Your task to perform on an android device: Open Reddit.com Image 0: 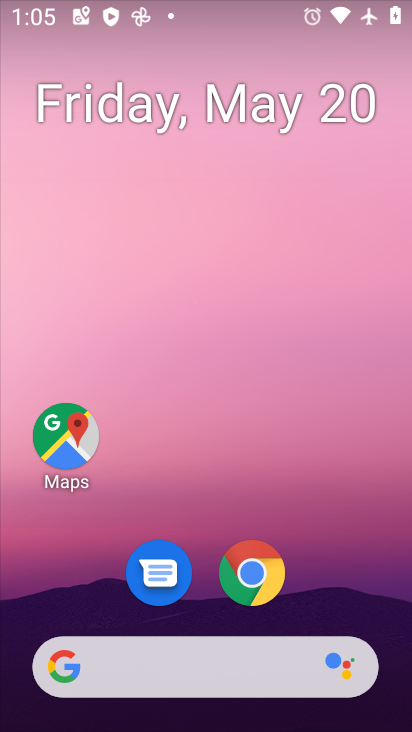
Step 0: drag from (311, 590) to (318, 102)
Your task to perform on an android device: Open Reddit.com Image 1: 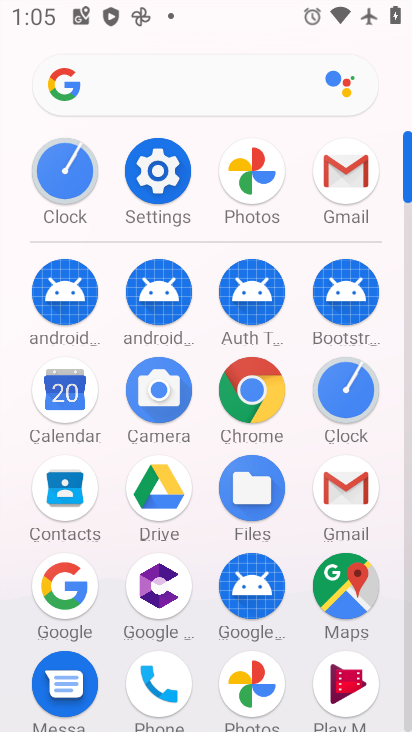
Step 1: click (57, 585)
Your task to perform on an android device: Open Reddit.com Image 2: 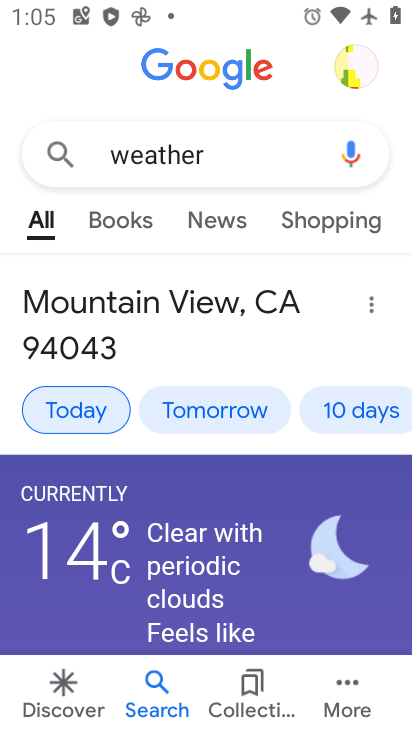
Step 2: click (240, 156)
Your task to perform on an android device: Open Reddit.com Image 3: 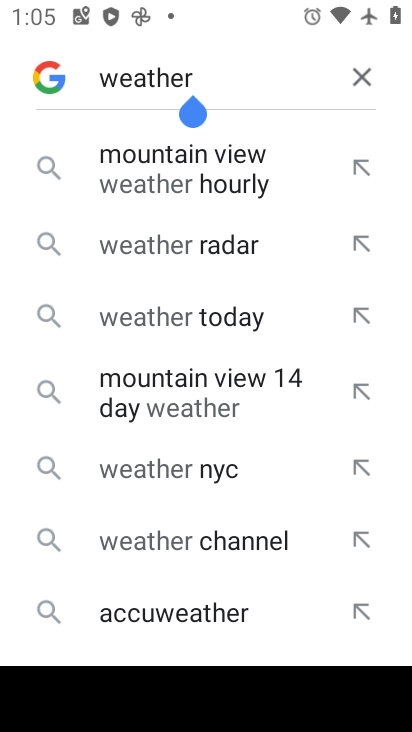
Step 3: click (359, 68)
Your task to perform on an android device: Open Reddit.com Image 4: 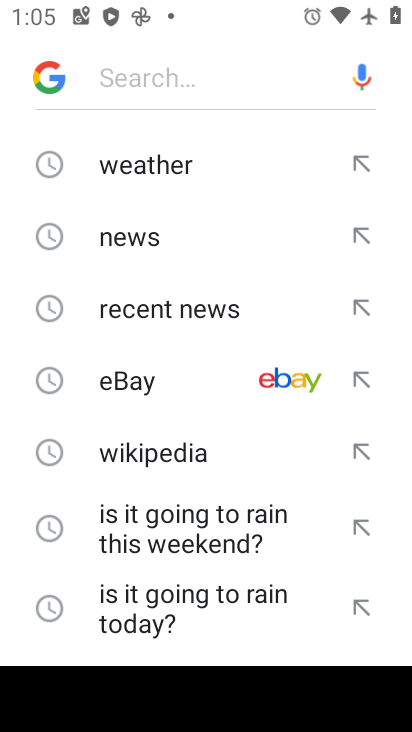
Step 4: drag from (211, 540) to (209, 171)
Your task to perform on an android device: Open Reddit.com Image 5: 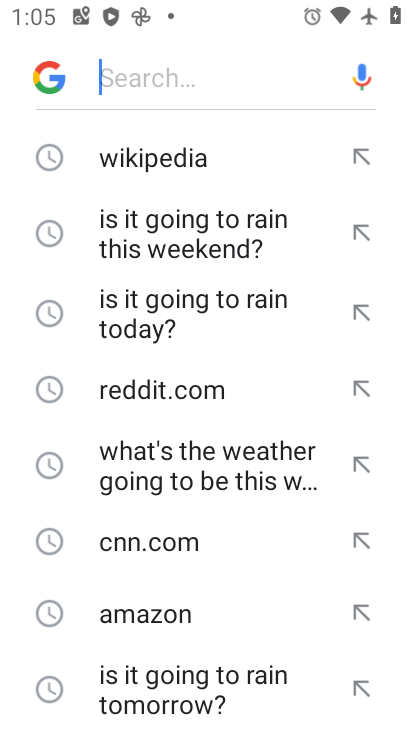
Step 5: click (173, 392)
Your task to perform on an android device: Open Reddit.com Image 6: 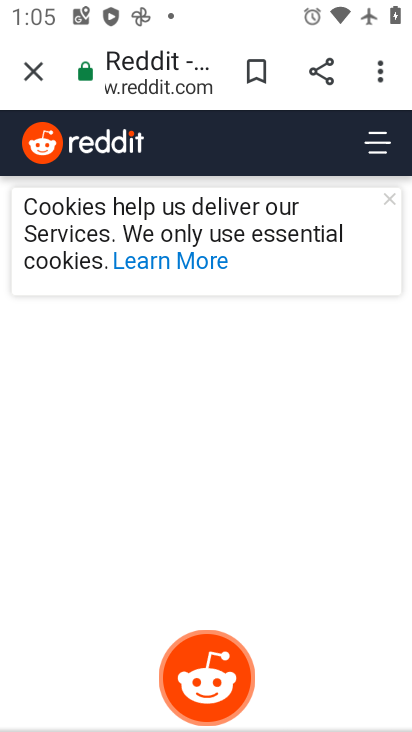
Step 6: task complete